Your task to perform on an android device: Open battery settings Image 0: 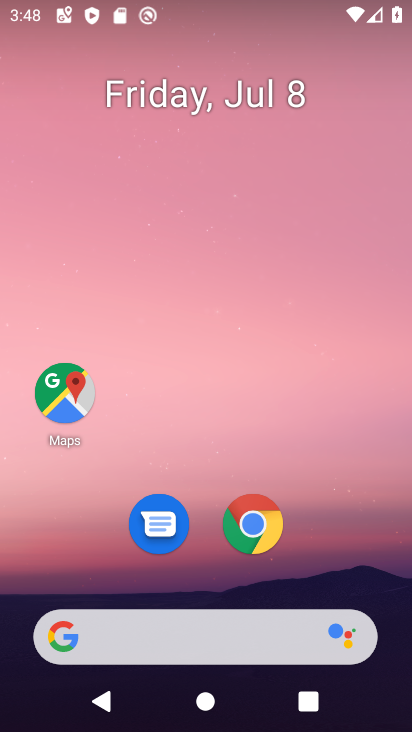
Step 0: drag from (330, 542) to (270, 0)
Your task to perform on an android device: Open battery settings Image 1: 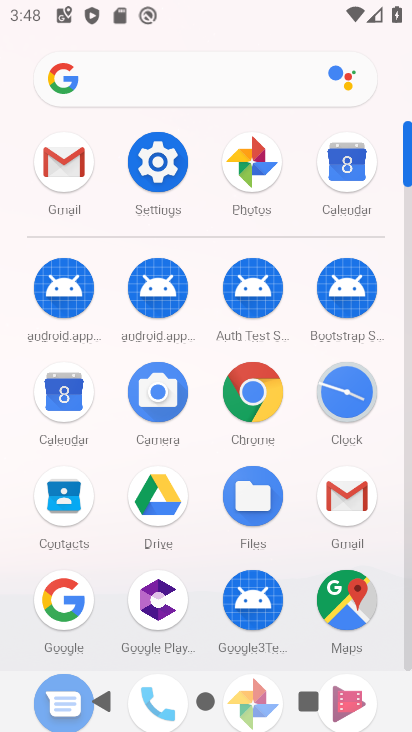
Step 1: click (165, 168)
Your task to perform on an android device: Open battery settings Image 2: 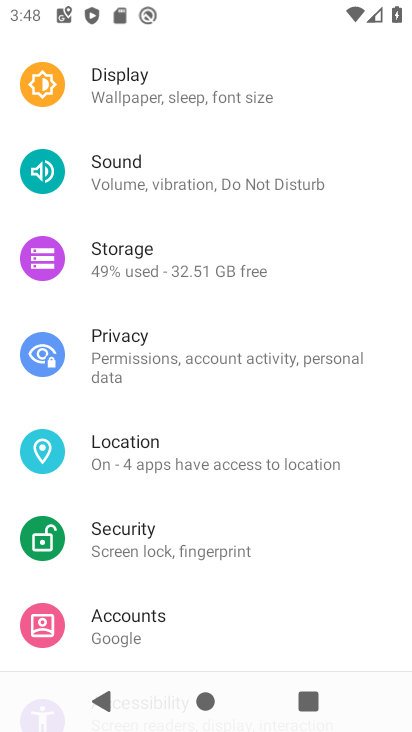
Step 2: drag from (220, 518) to (222, 346)
Your task to perform on an android device: Open battery settings Image 3: 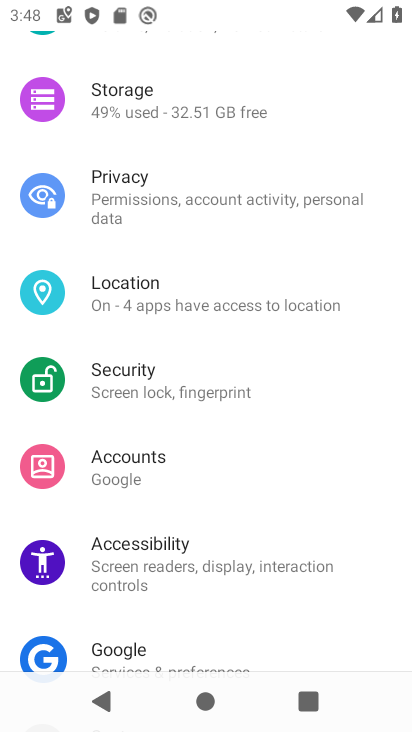
Step 3: drag from (197, 177) to (191, 563)
Your task to perform on an android device: Open battery settings Image 4: 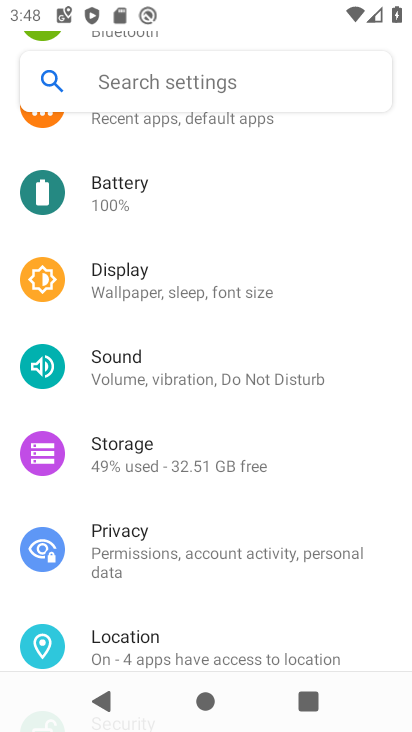
Step 4: click (130, 188)
Your task to perform on an android device: Open battery settings Image 5: 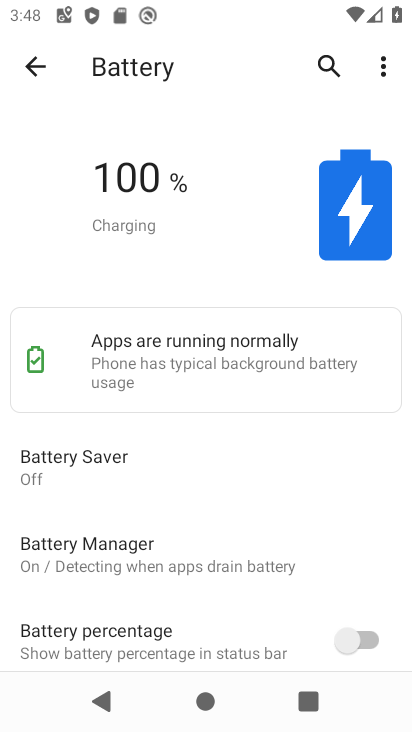
Step 5: task complete